Your task to perform on an android device: What's the weather going to be tomorrow? Image 0: 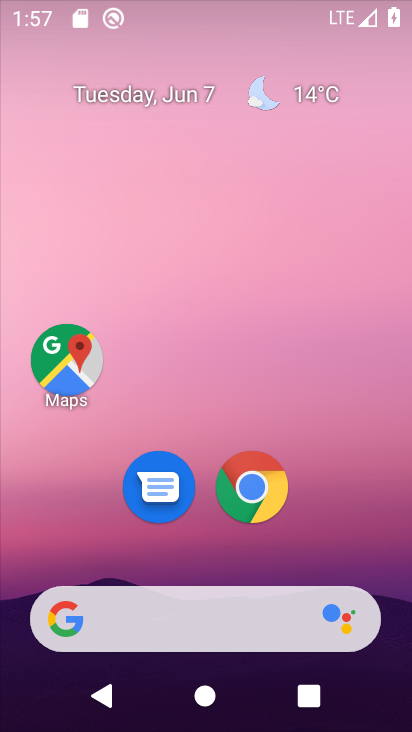
Step 0: drag from (224, 579) to (245, 40)
Your task to perform on an android device: What's the weather going to be tomorrow? Image 1: 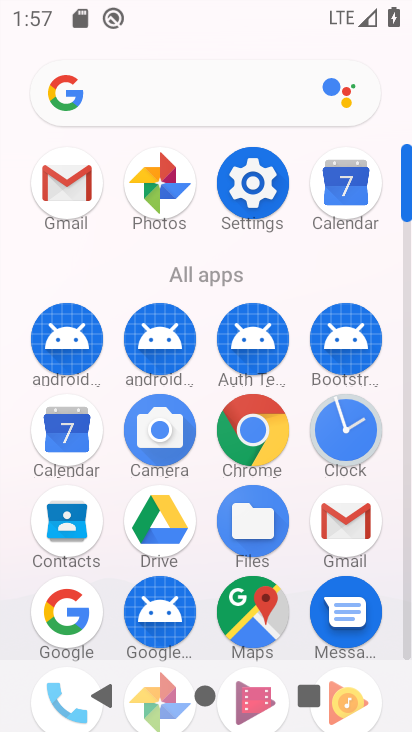
Step 1: click (77, 617)
Your task to perform on an android device: What's the weather going to be tomorrow? Image 2: 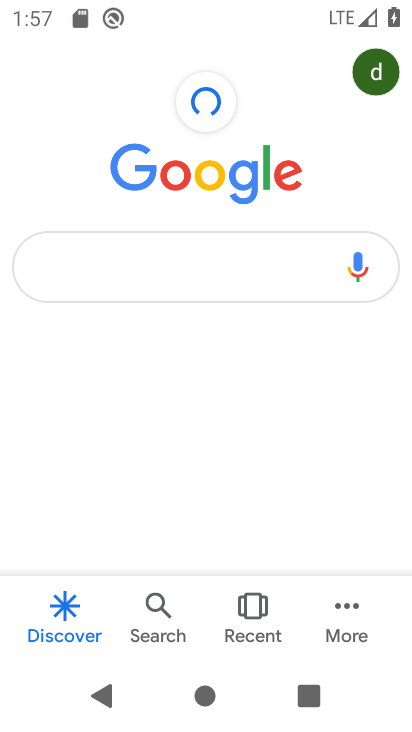
Step 2: click (113, 290)
Your task to perform on an android device: What's the weather going to be tomorrow? Image 3: 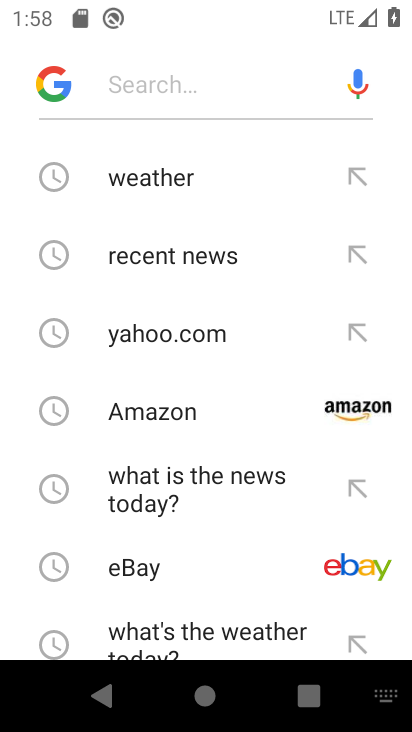
Step 3: click (97, 182)
Your task to perform on an android device: What's the weather going to be tomorrow? Image 4: 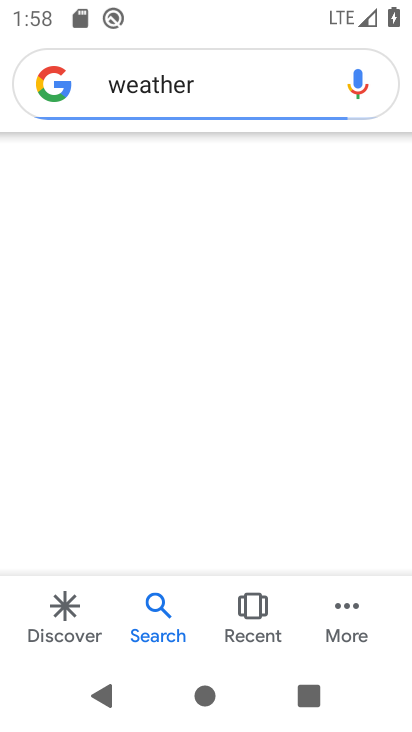
Step 4: task complete